Your task to perform on an android device: What's the weather today? Image 0: 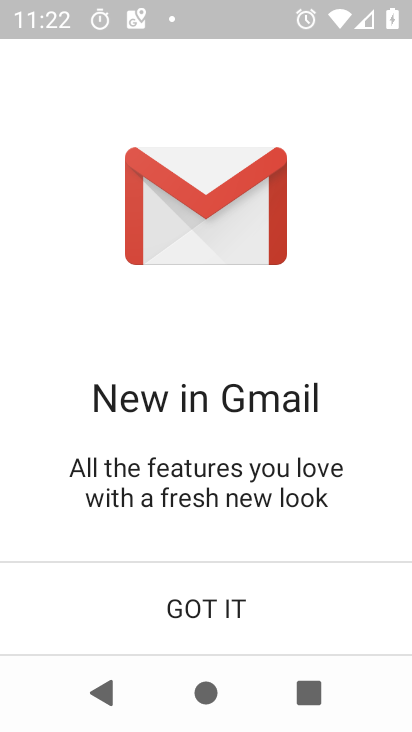
Step 0: press back button
Your task to perform on an android device: What's the weather today? Image 1: 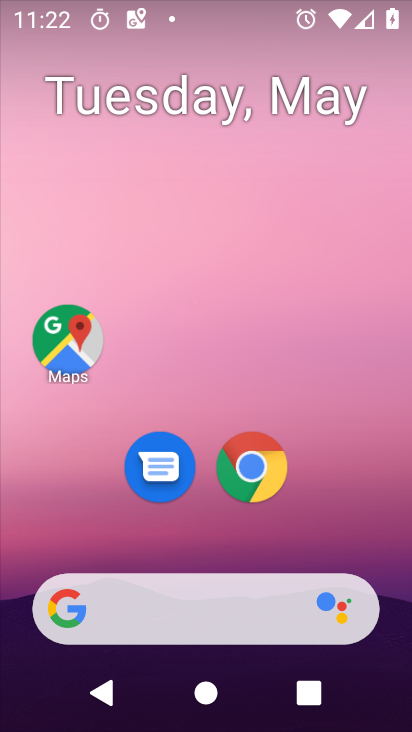
Step 1: drag from (346, 514) to (208, 12)
Your task to perform on an android device: What's the weather today? Image 2: 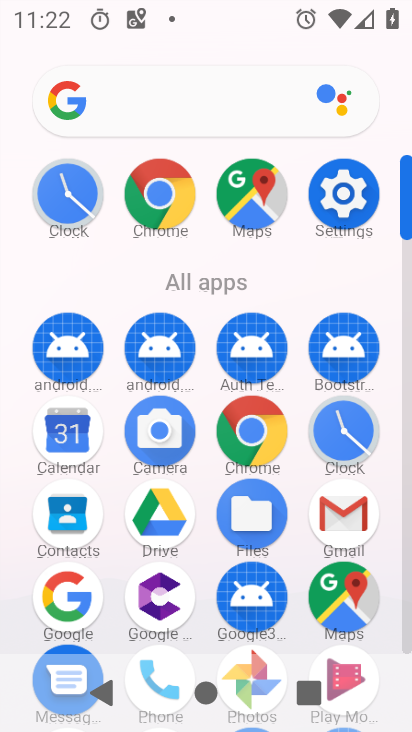
Step 2: drag from (23, 546) to (13, 229)
Your task to perform on an android device: What's the weather today? Image 3: 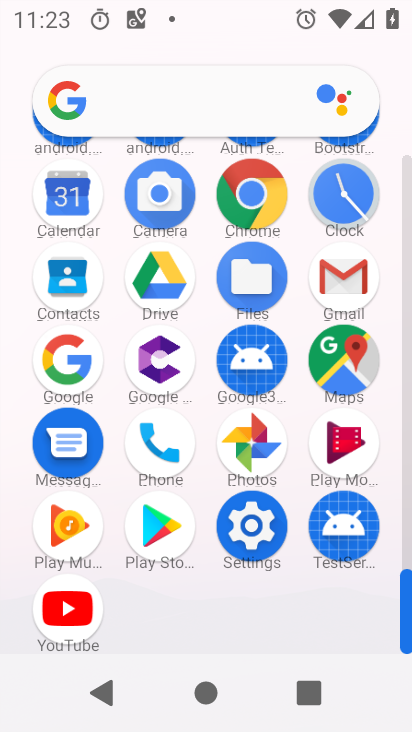
Step 3: drag from (18, 239) to (2, 393)
Your task to perform on an android device: What's the weather today? Image 4: 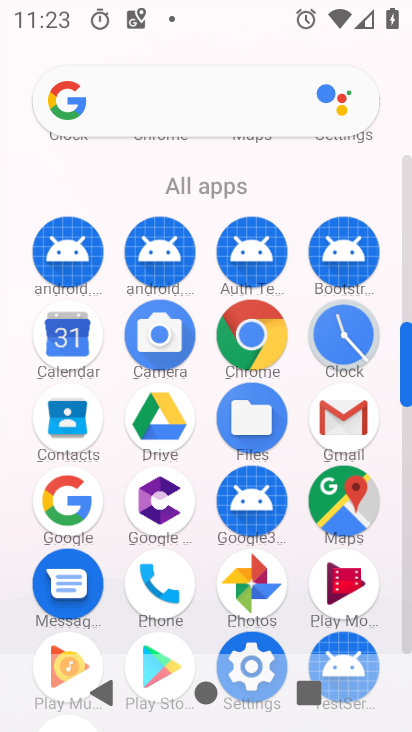
Step 4: drag from (12, 408) to (23, 156)
Your task to perform on an android device: What's the weather today? Image 5: 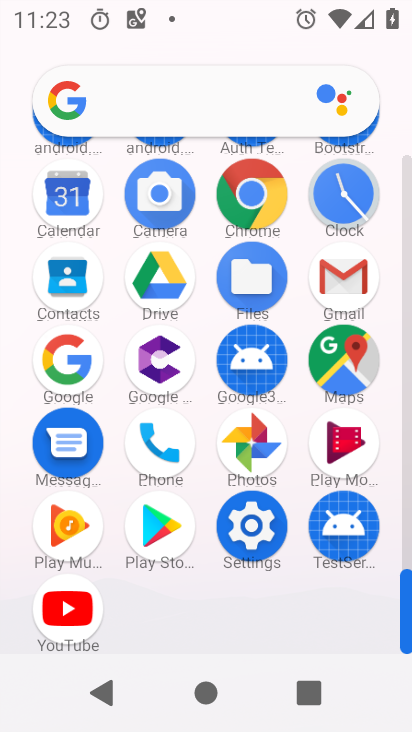
Step 5: click (248, 189)
Your task to perform on an android device: What's the weather today? Image 6: 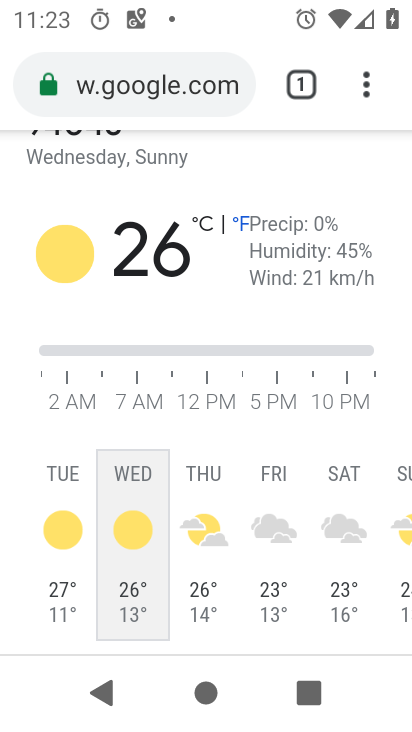
Step 6: click (132, 79)
Your task to perform on an android device: What's the weather today? Image 7: 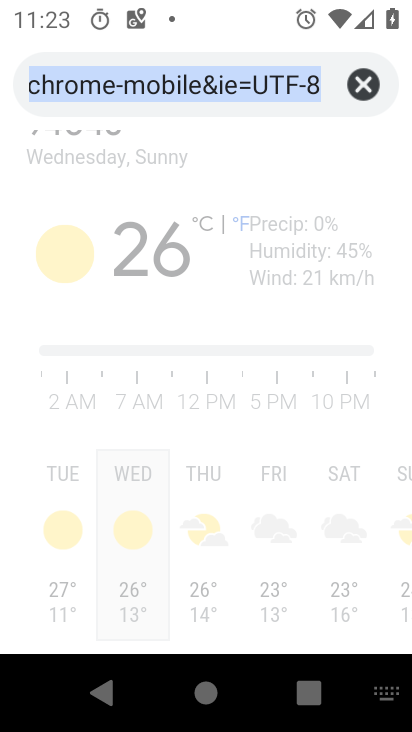
Step 7: click (362, 78)
Your task to perform on an android device: What's the weather today? Image 8: 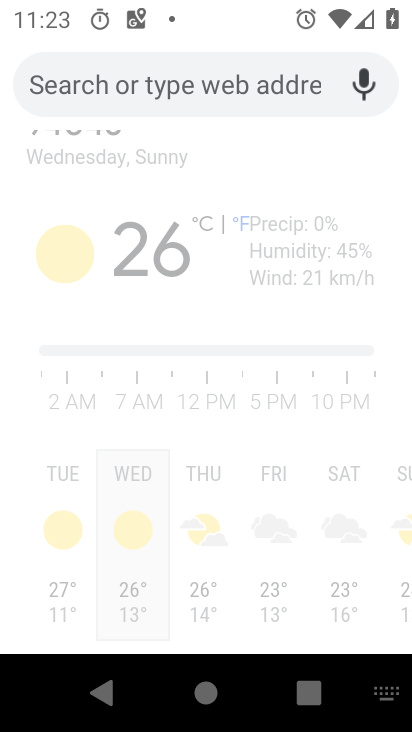
Step 8: type "What's the weather today?"
Your task to perform on an android device: What's the weather today? Image 9: 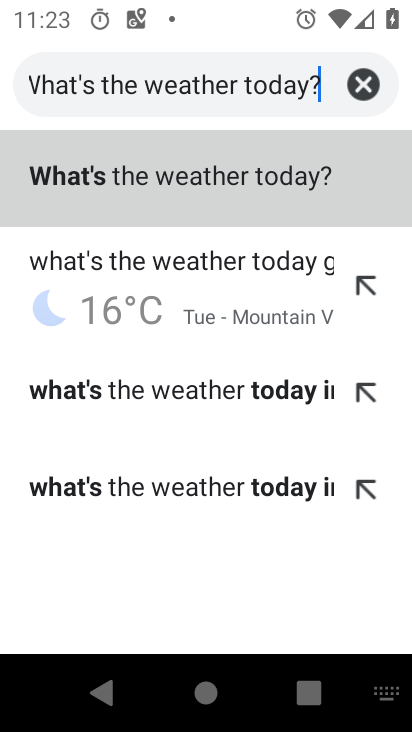
Step 9: click (281, 279)
Your task to perform on an android device: What's the weather today? Image 10: 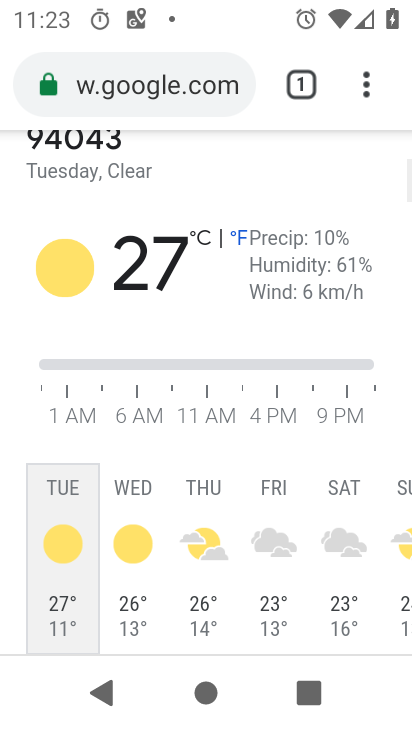
Step 10: task complete